Your task to perform on an android device: Go to display settings Image 0: 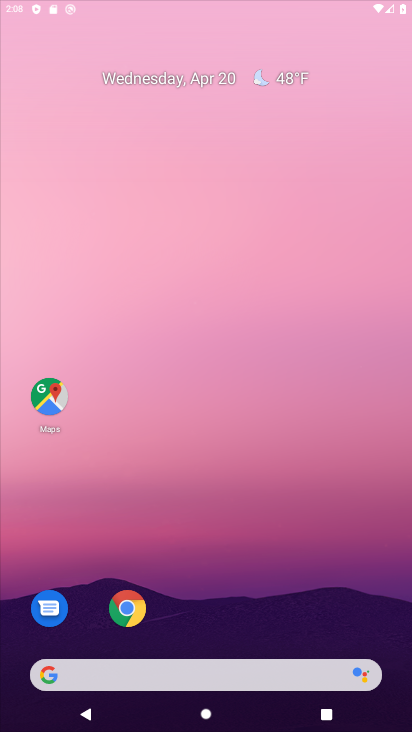
Step 0: click (279, 28)
Your task to perform on an android device: Go to display settings Image 1: 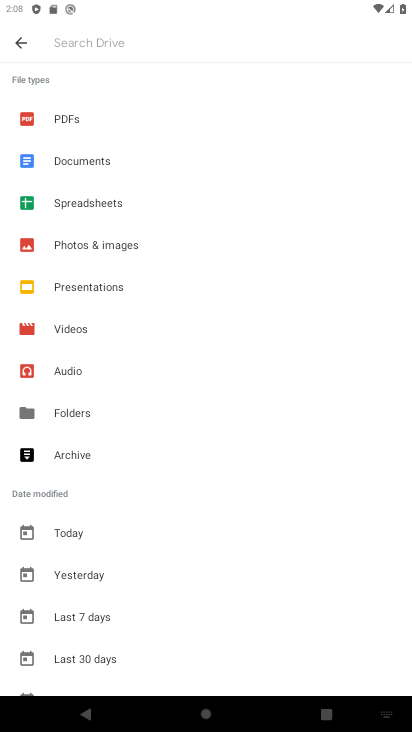
Step 1: press back button
Your task to perform on an android device: Go to display settings Image 2: 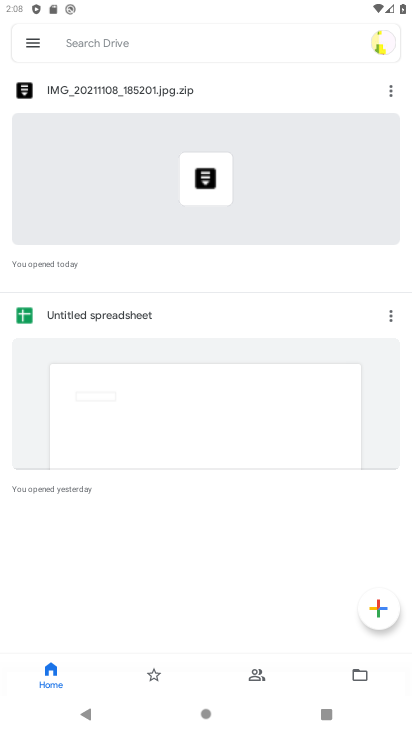
Step 2: press back button
Your task to perform on an android device: Go to display settings Image 3: 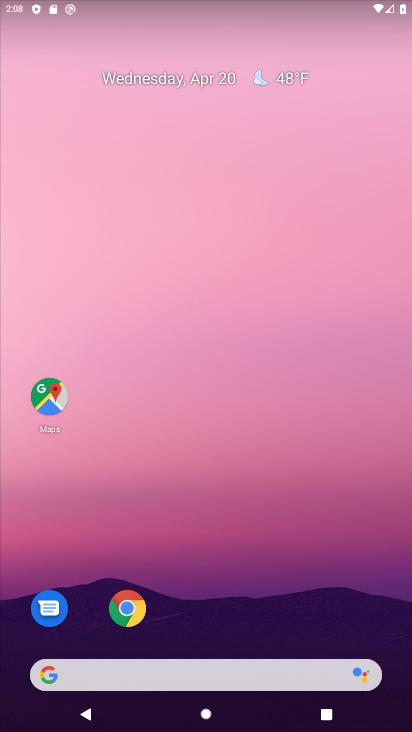
Step 3: drag from (263, 595) to (263, 75)
Your task to perform on an android device: Go to display settings Image 4: 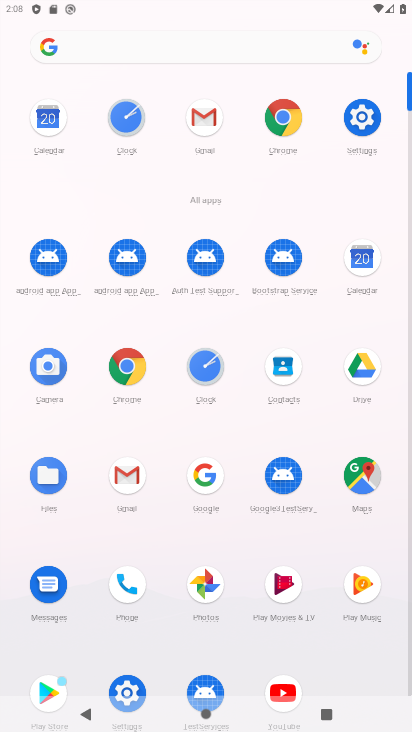
Step 4: click (353, 138)
Your task to perform on an android device: Go to display settings Image 5: 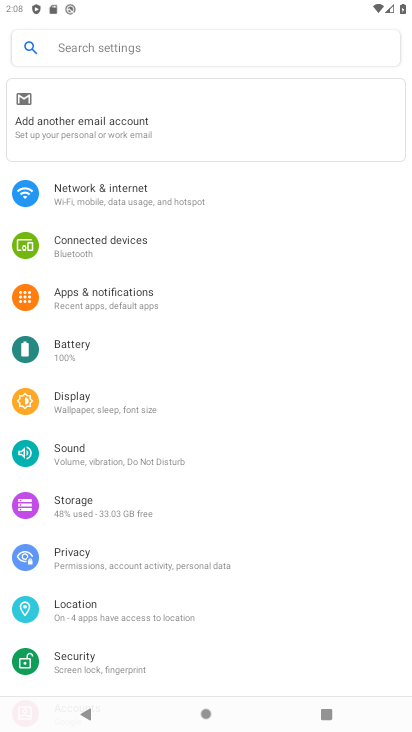
Step 5: click (136, 399)
Your task to perform on an android device: Go to display settings Image 6: 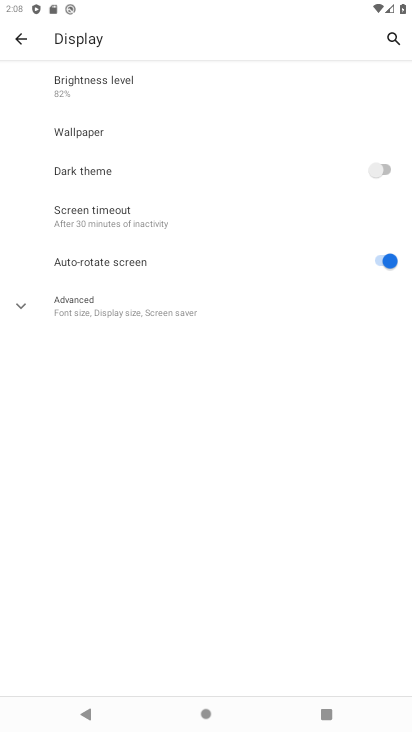
Step 6: task complete